Your task to perform on an android device: check storage Image 0: 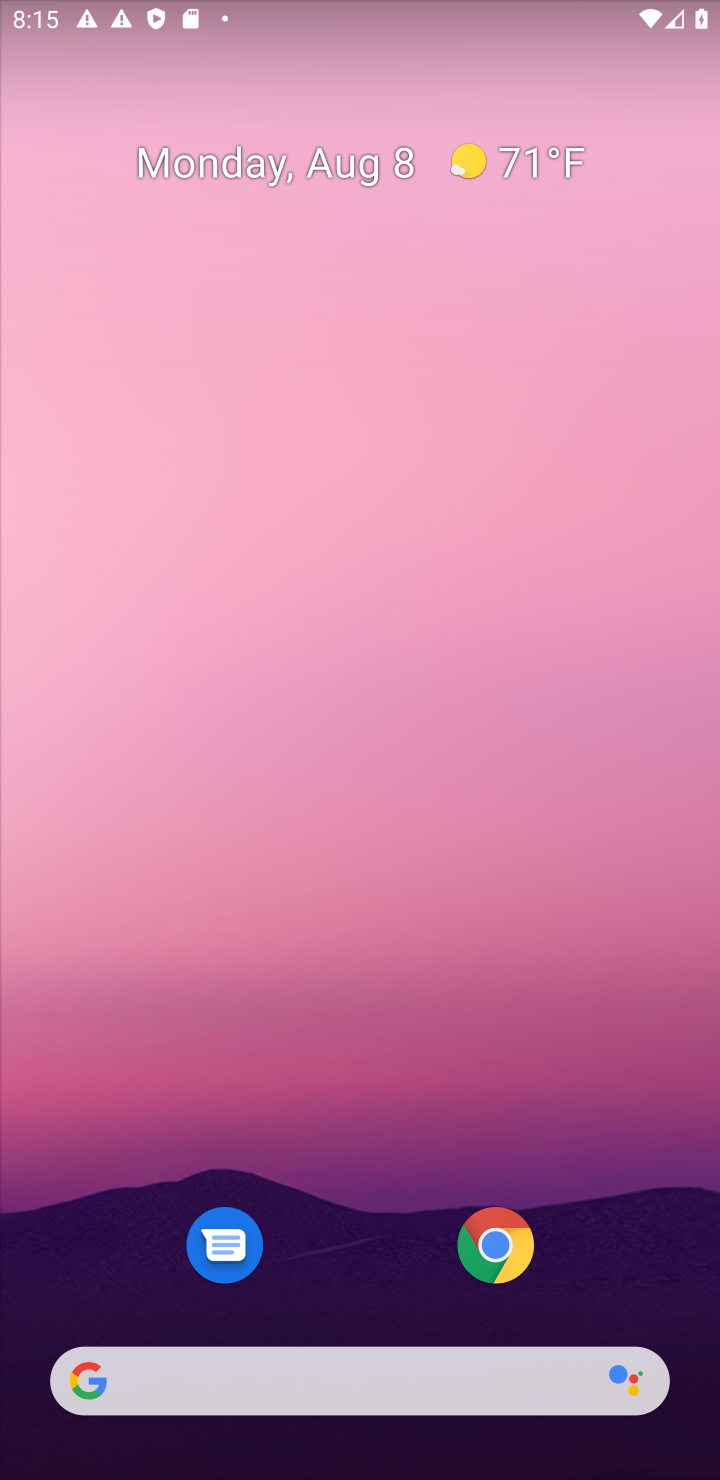
Step 0: drag from (324, 1157) to (536, 0)
Your task to perform on an android device: check storage Image 1: 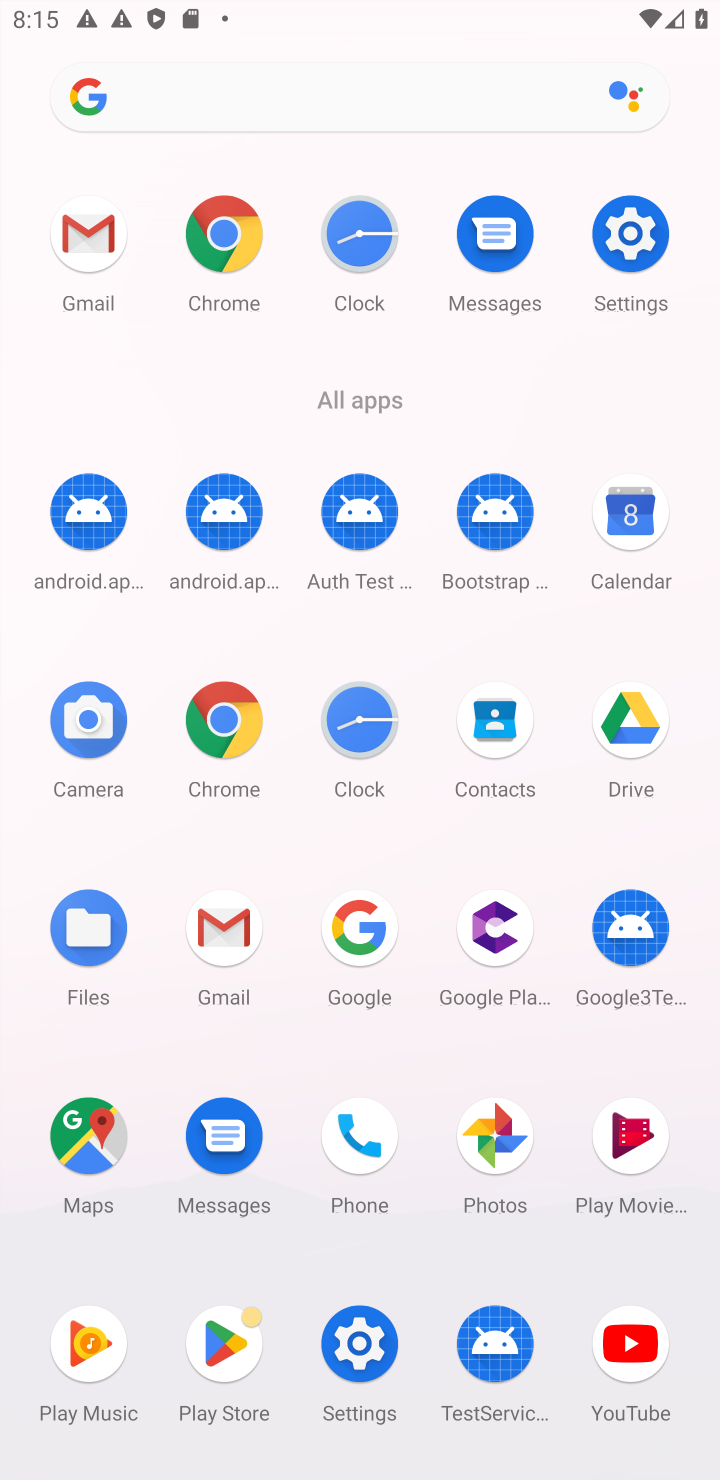
Step 1: click (619, 260)
Your task to perform on an android device: check storage Image 2: 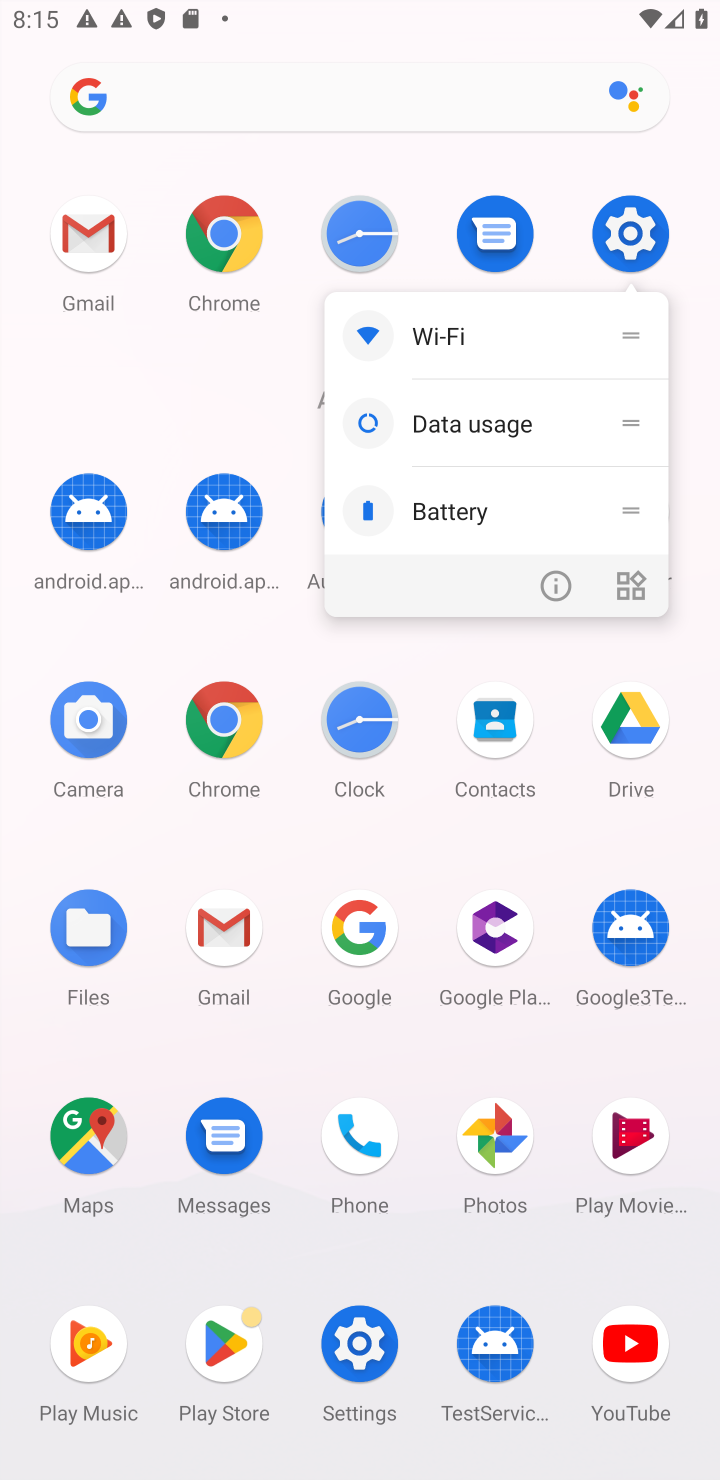
Step 2: click (657, 221)
Your task to perform on an android device: check storage Image 3: 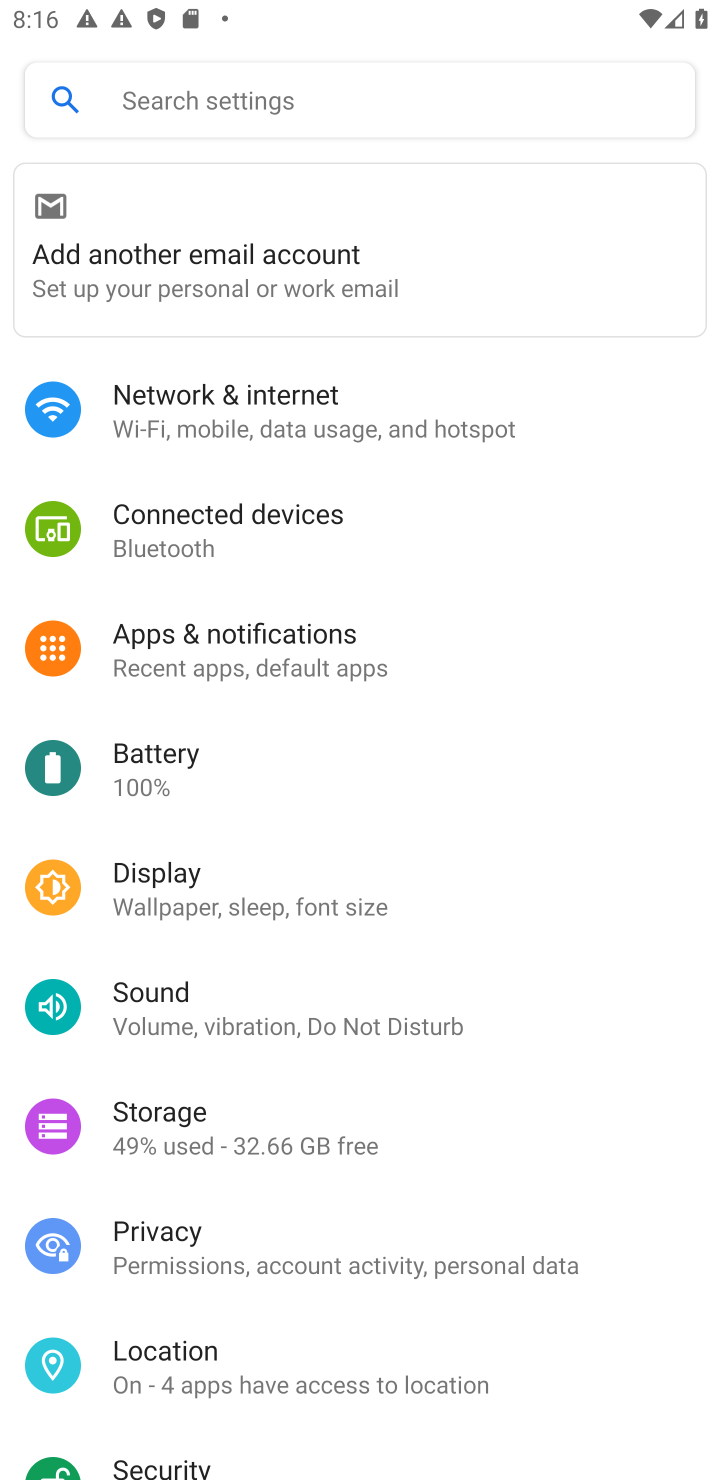
Step 3: click (281, 1151)
Your task to perform on an android device: check storage Image 4: 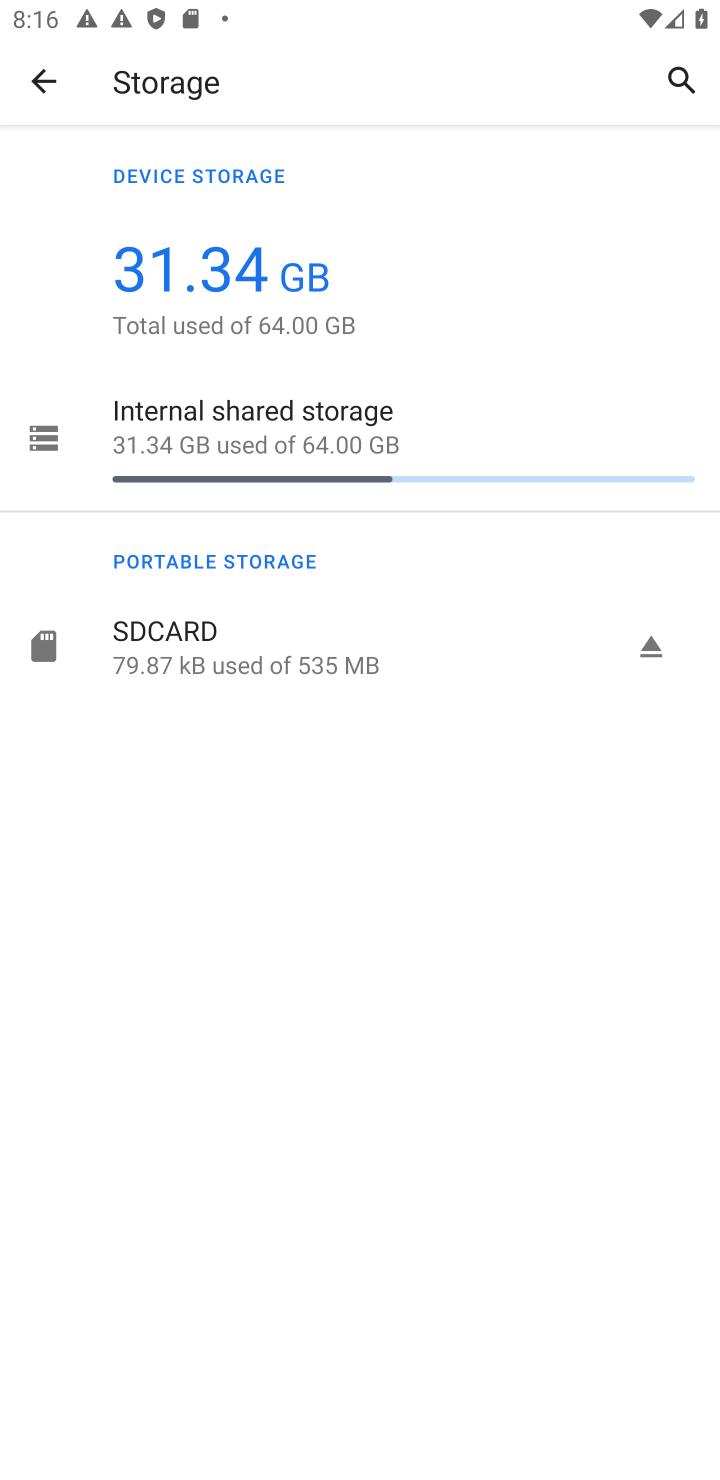
Step 4: click (259, 409)
Your task to perform on an android device: check storage Image 5: 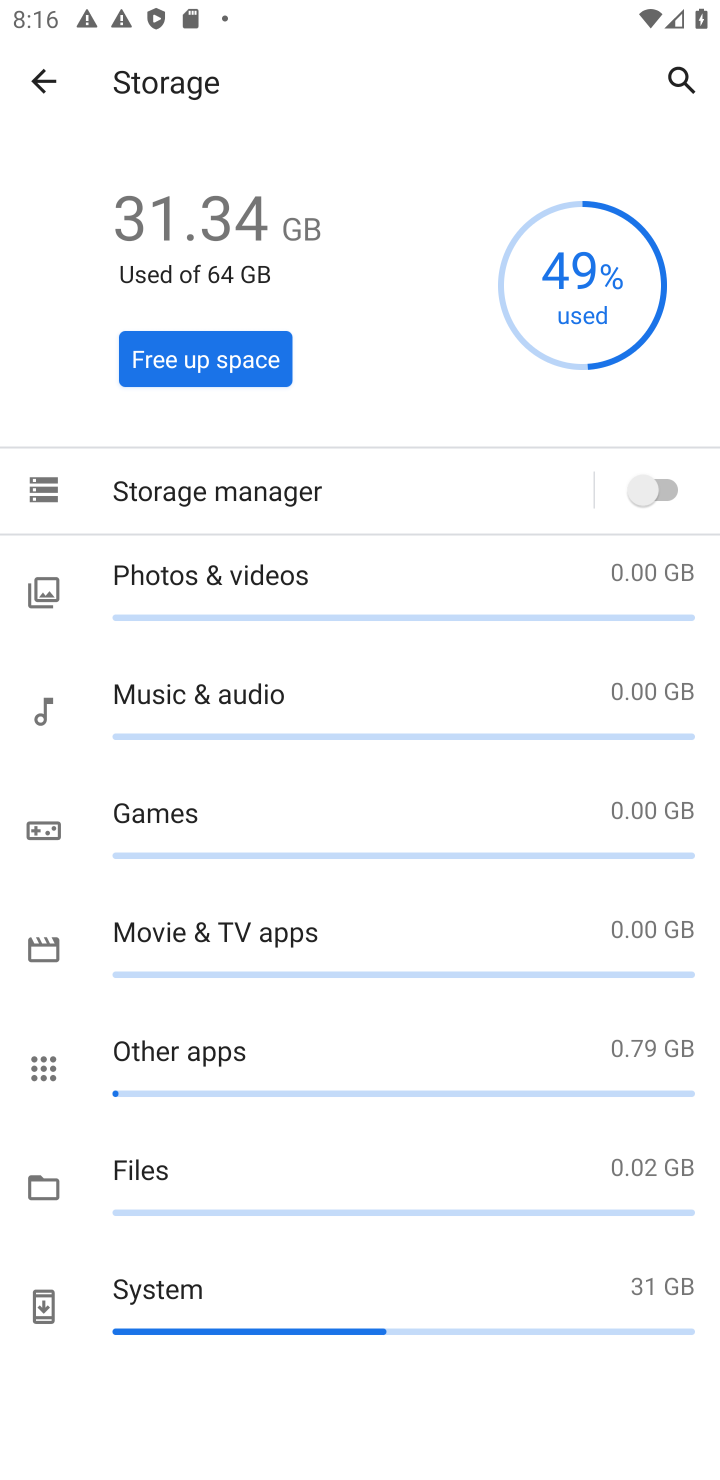
Step 5: task complete